Your task to perform on an android device: Go to settings Image 0: 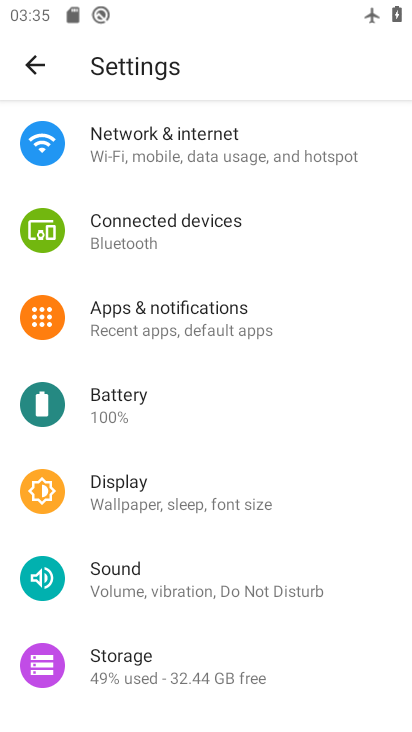
Step 0: press home button
Your task to perform on an android device: Go to settings Image 1: 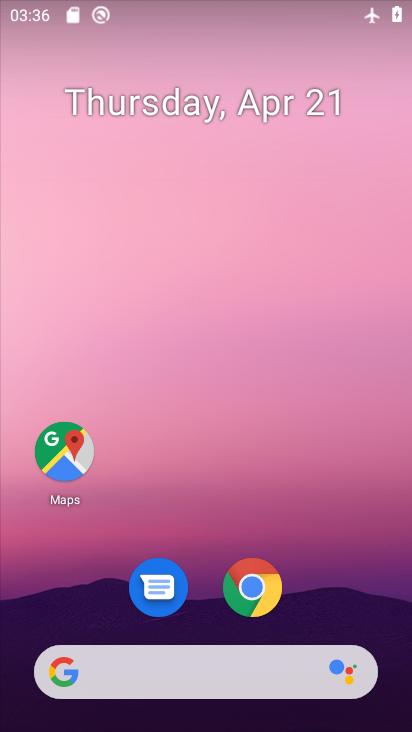
Step 1: drag from (338, 581) to (352, 156)
Your task to perform on an android device: Go to settings Image 2: 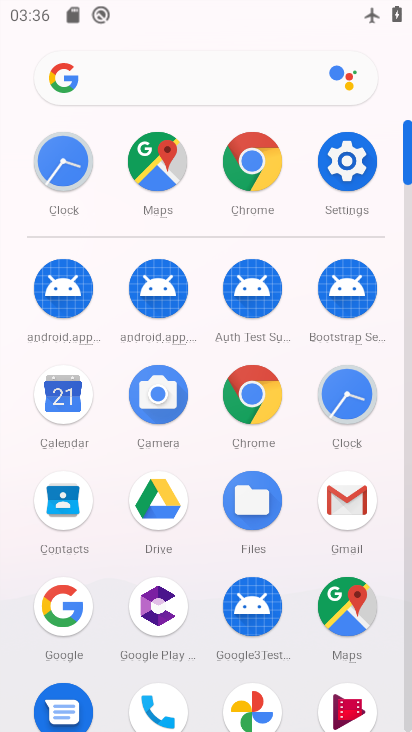
Step 2: click (354, 171)
Your task to perform on an android device: Go to settings Image 3: 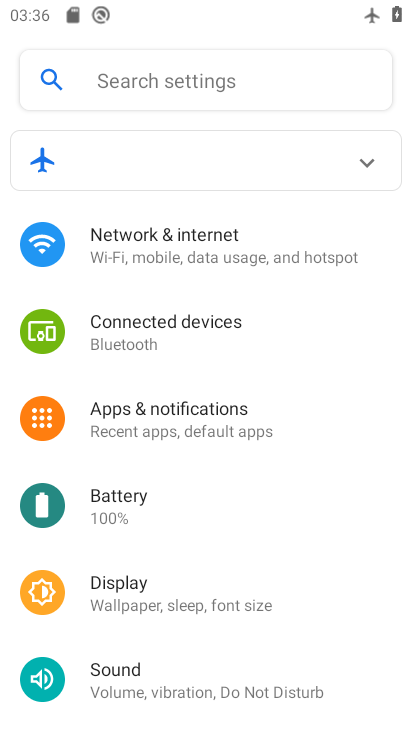
Step 3: task complete